Your task to perform on an android device: toggle pop-ups in chrome Image 0: 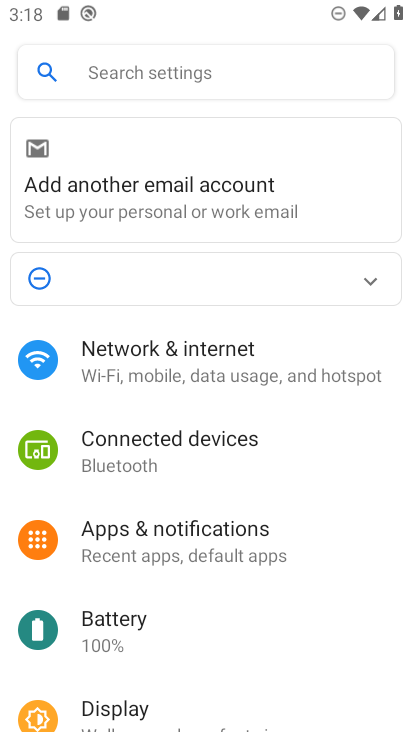
Step 0: press home button
Your task to perform on an android device: toggle pop-ups in chrome Image 1: 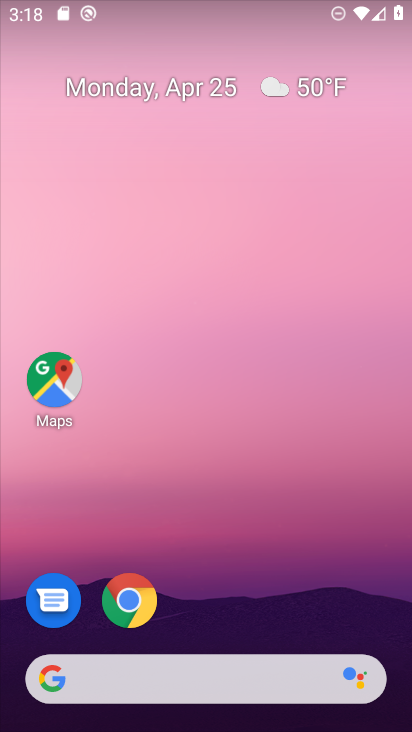
Step 1: drag from (225, 623) to (234, 0)
Your task to perform on an android device: toggle pop-ups in chrome Image 2: 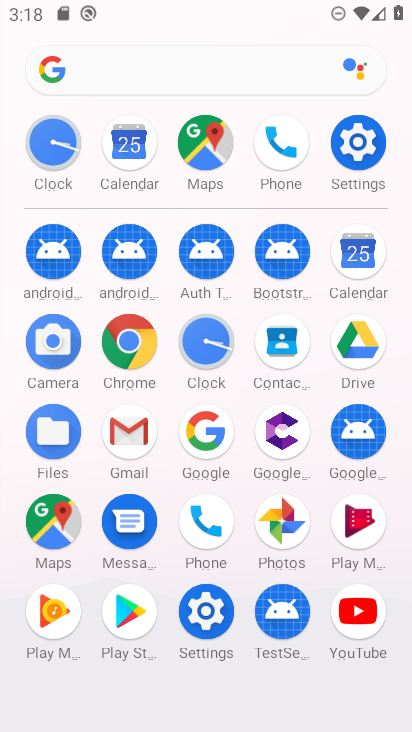
Step 2: click (141, 328)
Your task to perform on an android device: toggle pop-ups in chrome Image 3: 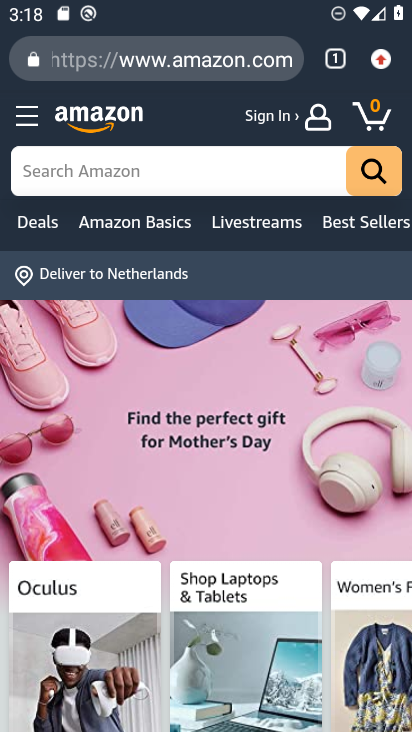
Step 3: click (381, 69)
Your task to perform on an android device: toggle pop-ups in chrome Image 4: 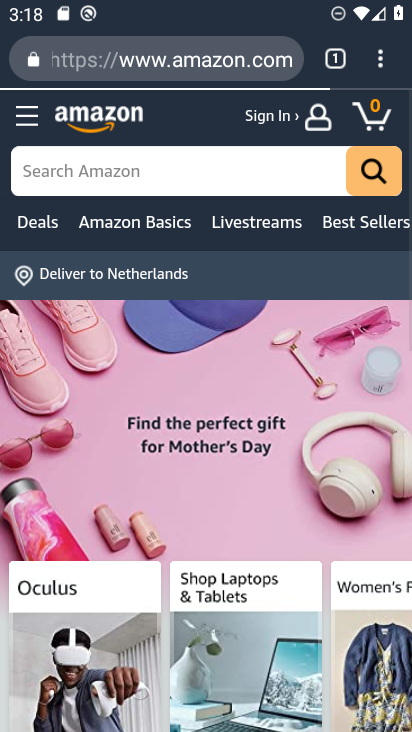
Step 4: drag from (381, 69) to (191, 632)
Your task to perform on an android device: toggle pop-ups in chrome Image 5: 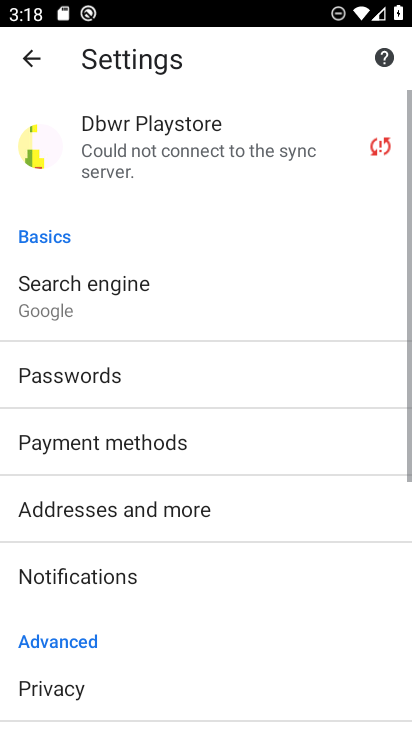
Step 5: drag from (211, 575) to (134, 42)
Your task to perform on an android device: toggle pop-ups in chrome Image 6: 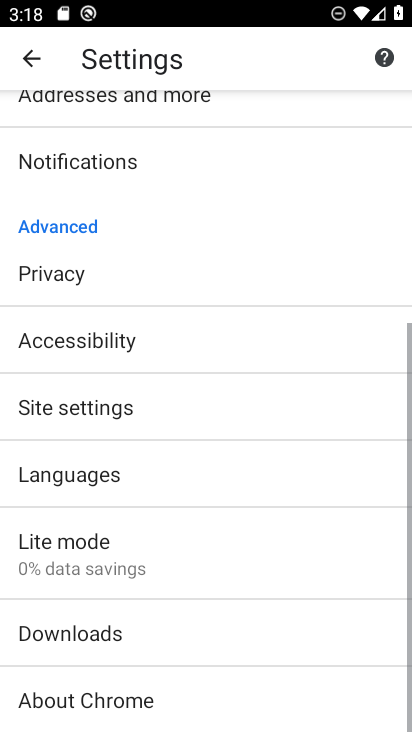
Step 6: click (89, 419)
Your task to perform on an android device: toggle pop-ups in chrome Image 7: 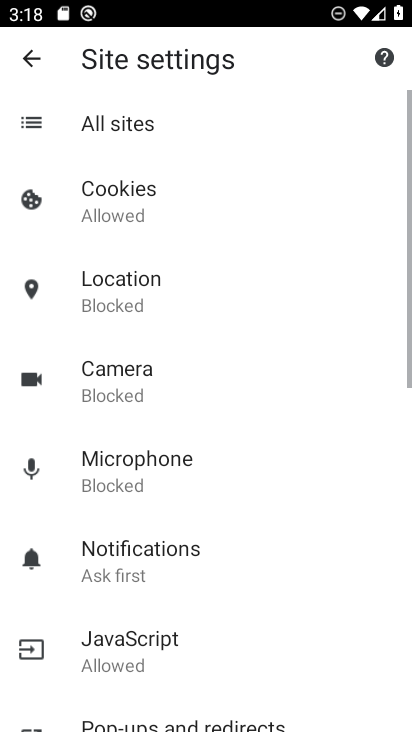
Step 7: drag from (125, 514) to (77, 92)
Your task to perform on an android device: toggle pop-ups in chrome Image 8: 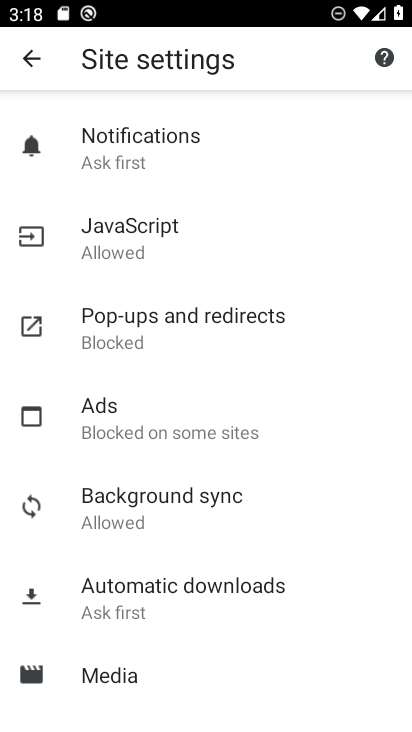
Step 8: click (126, 335)
Your task to perform on an android device: toggle pop-ups in chrome Image 9: 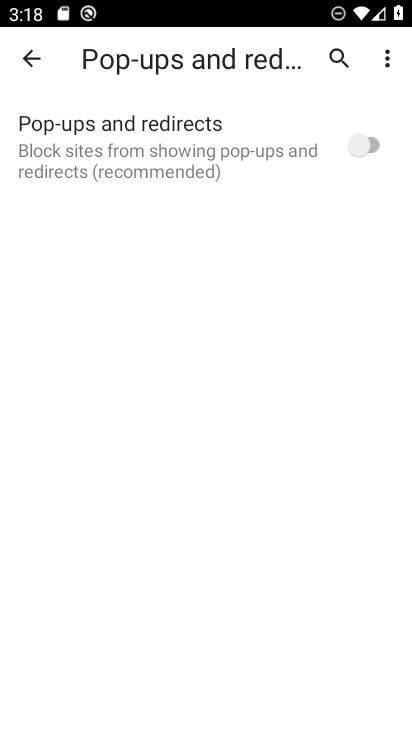
Step 9: click (370, 143)
Your task to perform on an android device: toggle pop-ups in chrome Image 10: 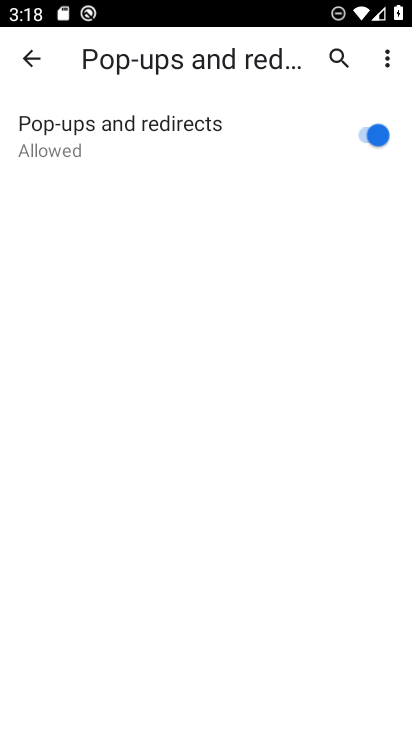
Step 10: task complete